Your task to perform on an android device: Empty the shopping cart on newegg.com. Image 0: 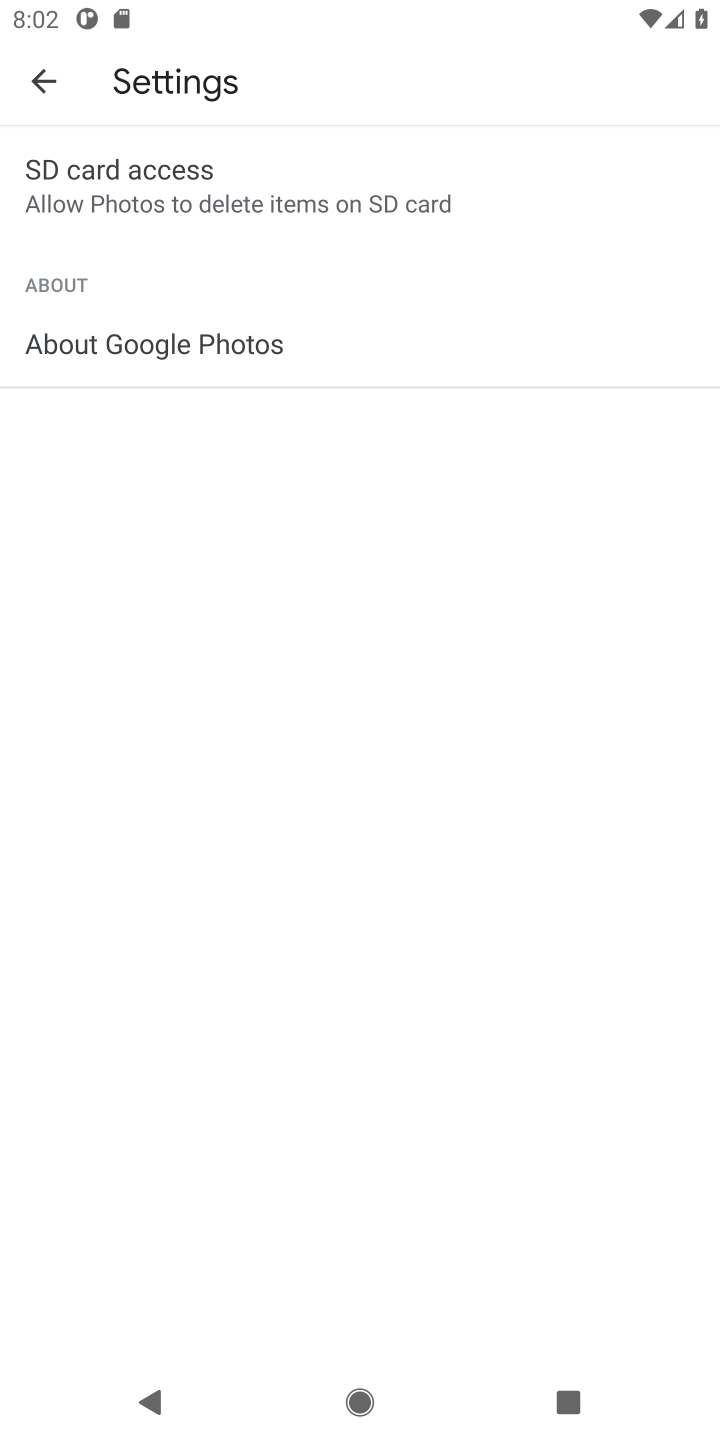
Step 0: press home button
Your task to perform on an android device: Empty the shopping cart on newegg.com. Image 1: 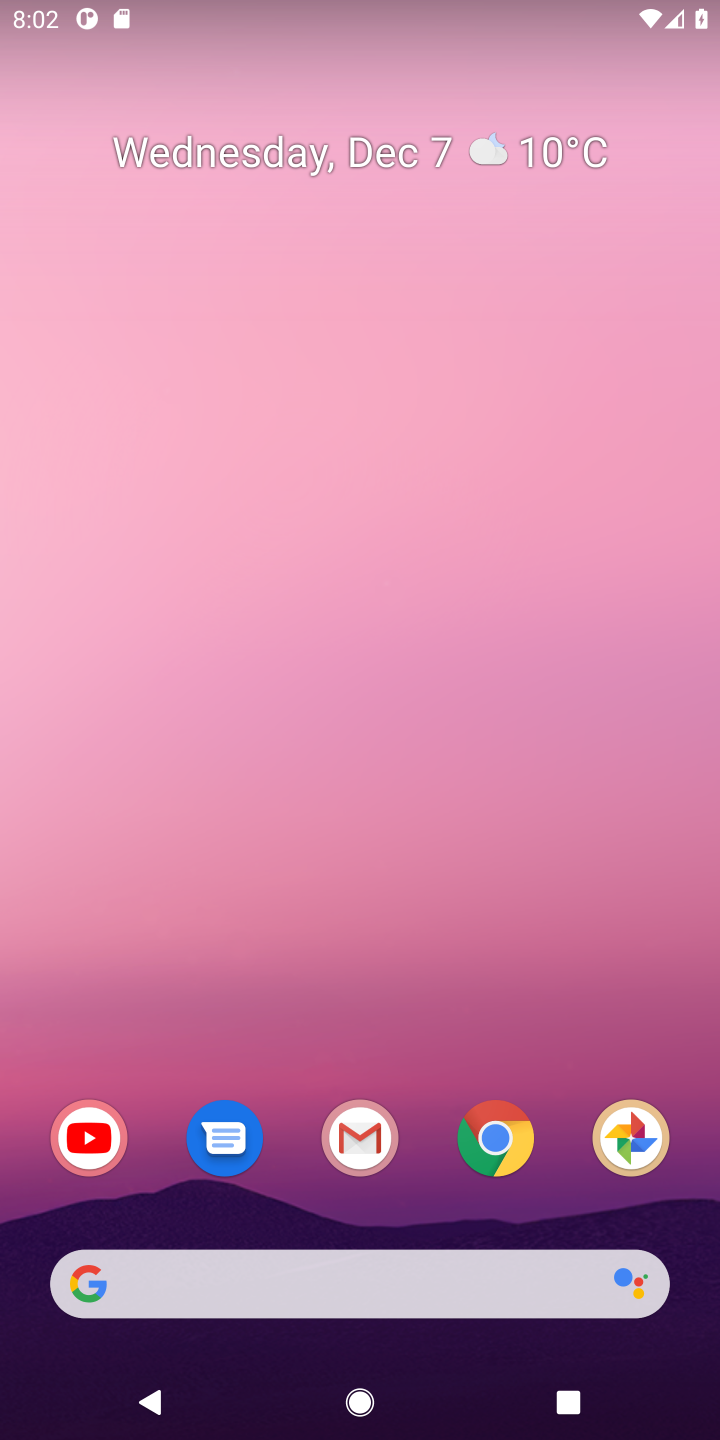
Step 1: click (118, 1288)
Your task to perform on an android device: Empty the shopping cart on newegg.com. Image 2: 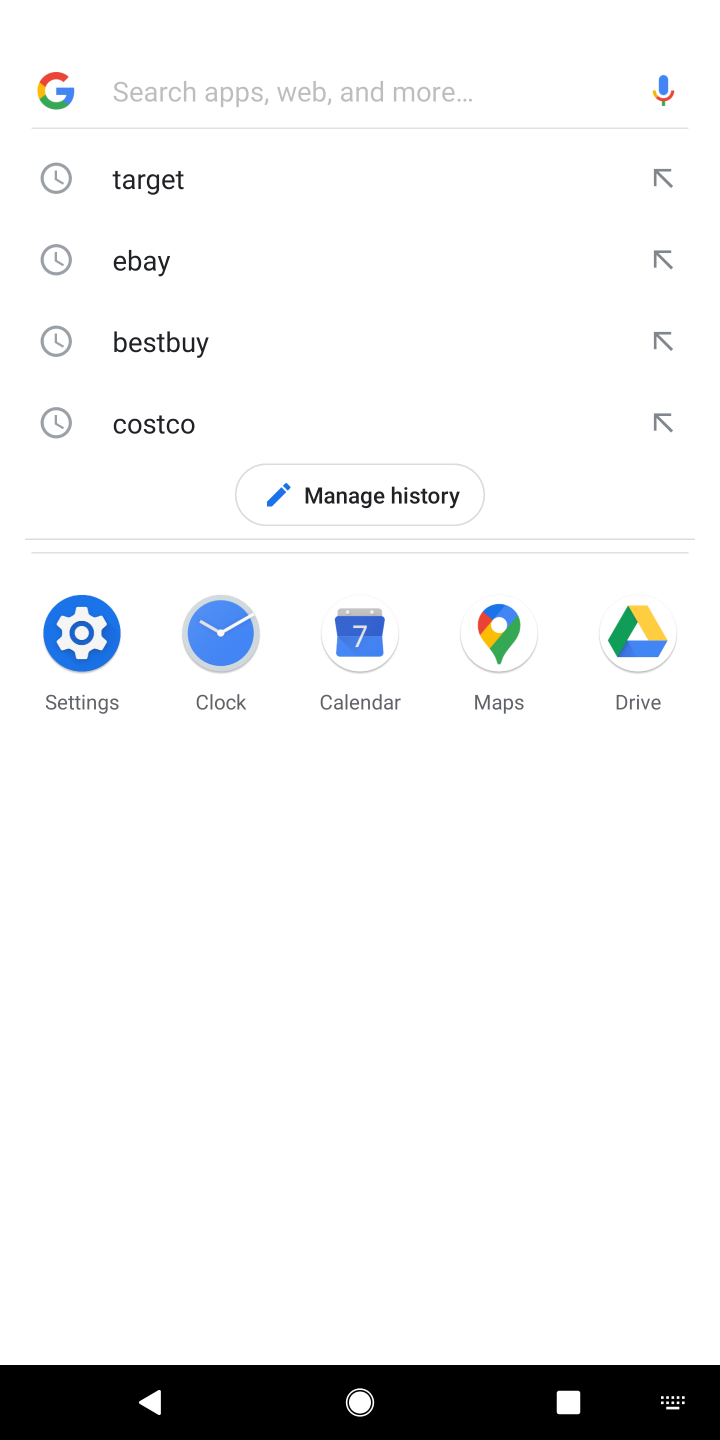
Step 2: press enter
Your task to perform on an android device: Empty the shopping cart on newegg.com. Image 3: 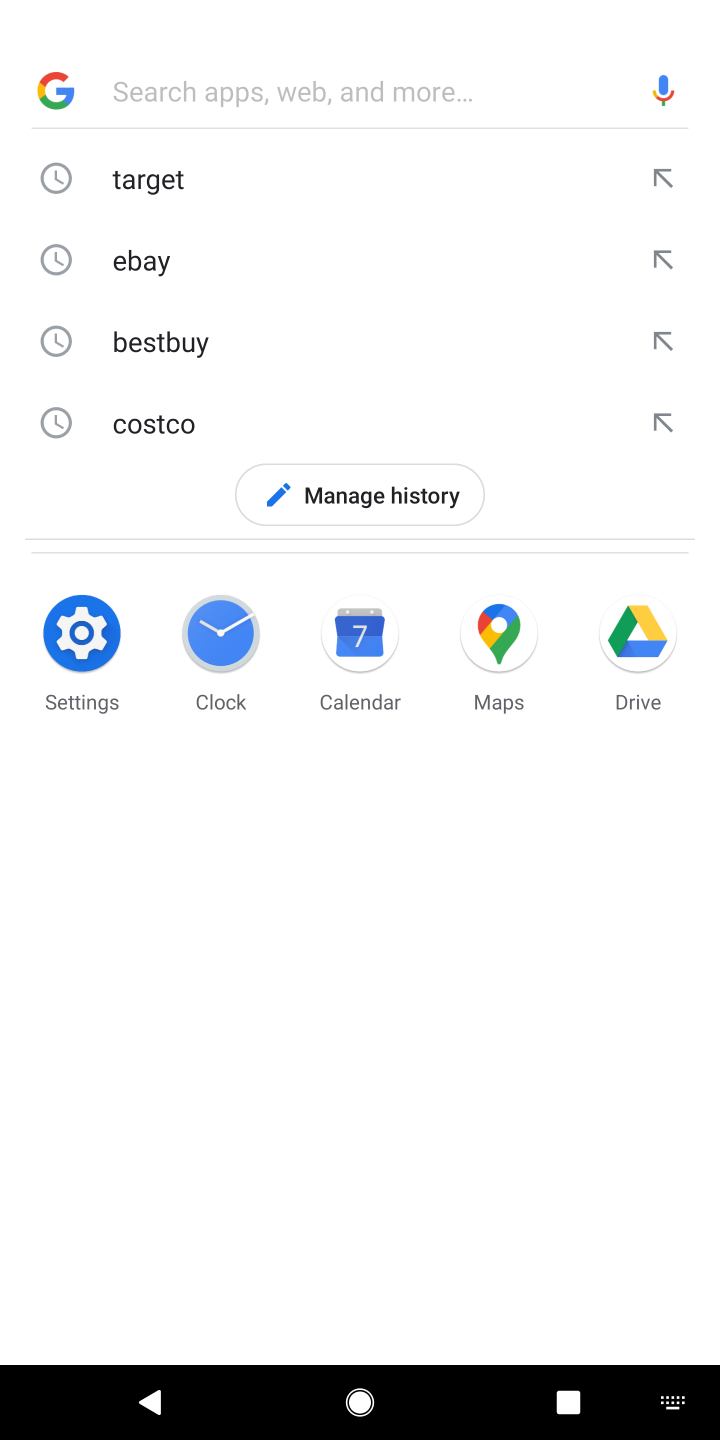
Step 3: type " newegg.com"
Your task to perform on an android device: Empty the shopping cart on newegg.com. Image 4: 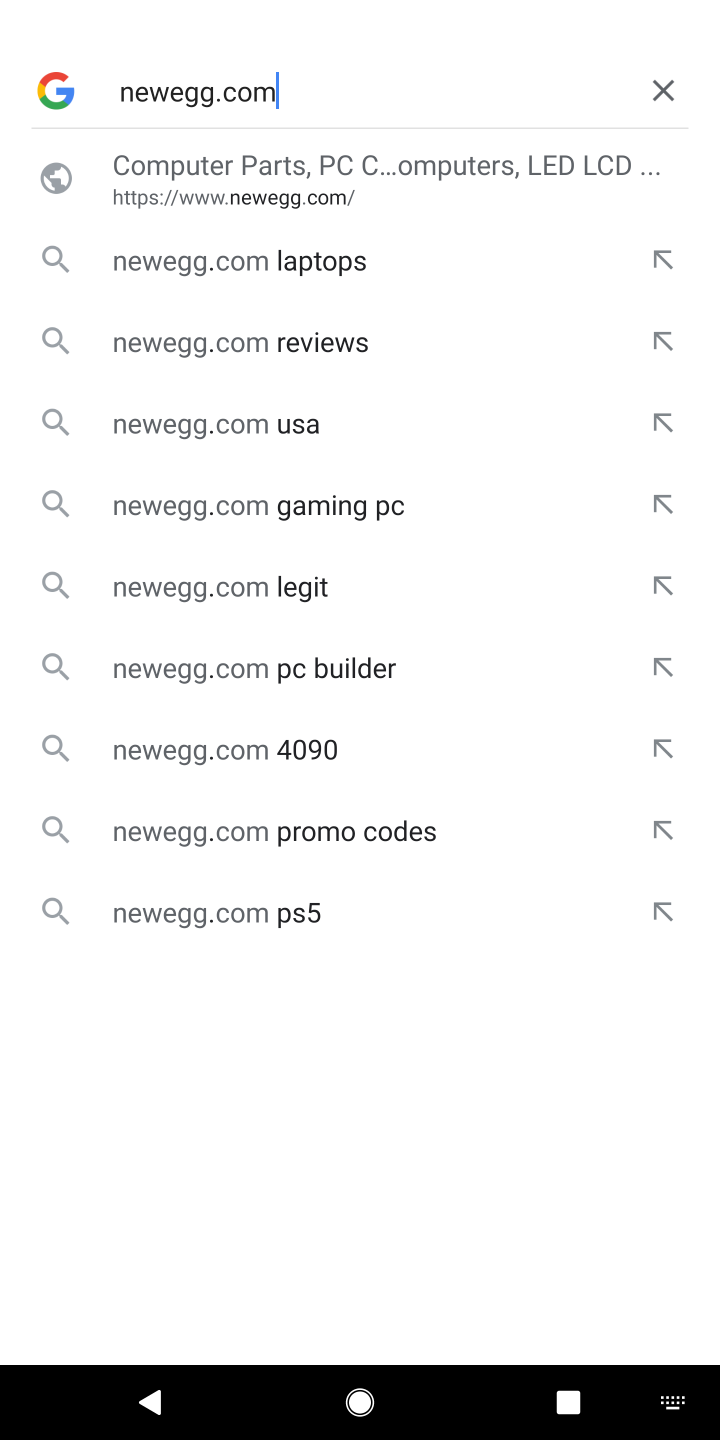
Step 4: press enter
Your task to perform on an android device: Empty the shopping cart on newegg.com. Image 5: 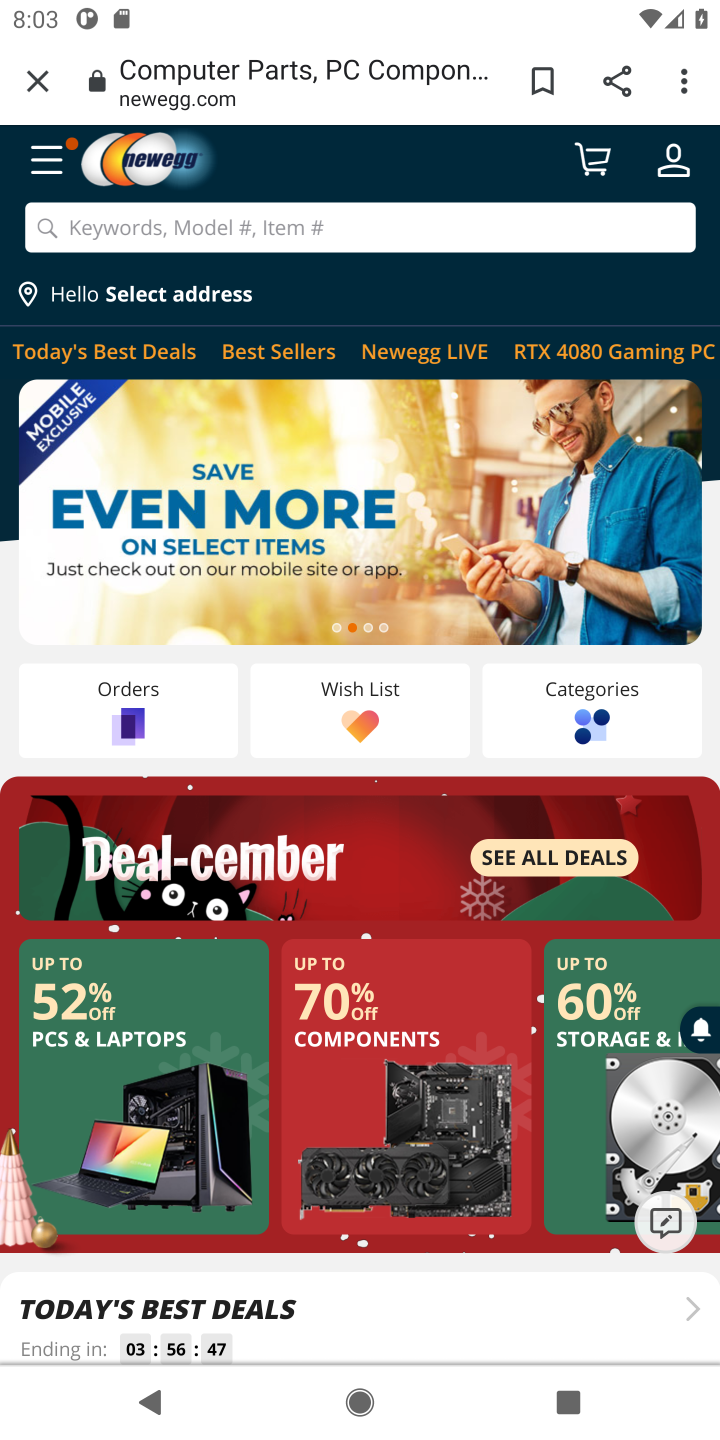
Step 5: click (581, 153)
Your task to perform on an android device: Empty the shopping cart on newegg.com. Image 6: 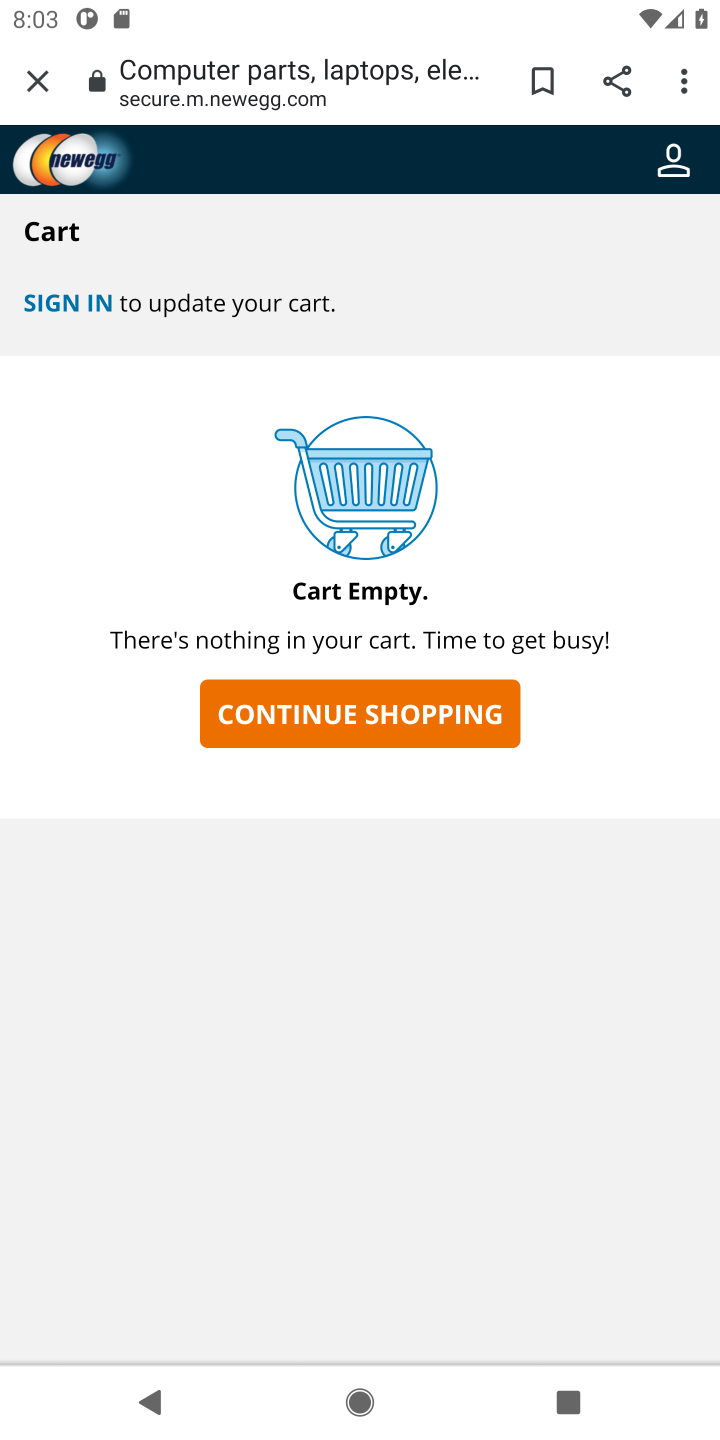
Step 6: task complete